Your task to perform on an android device: add a contact Image 0: 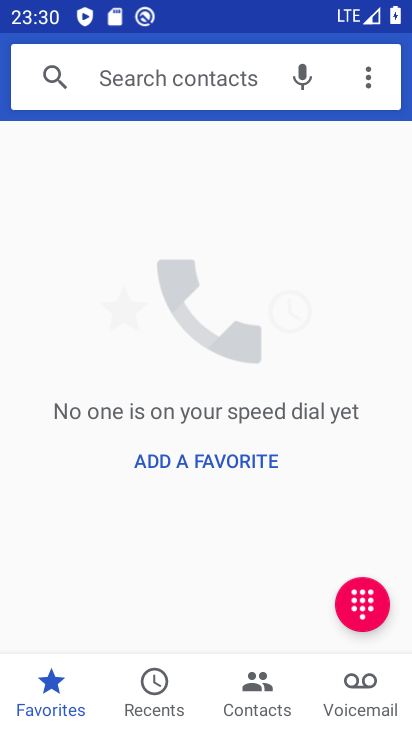
Step 0: press home button
Your task to perform on an android device: add a contact Image 1: 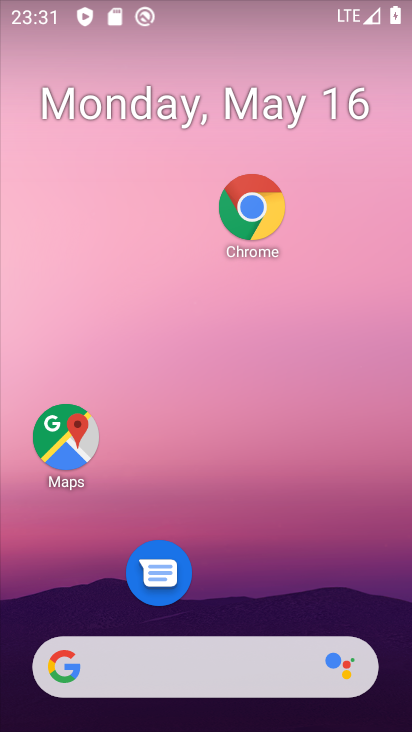
Step 1: drag from (213, 653) to (282, 57)
Your task to perform on an android device: add a contact Image 2: 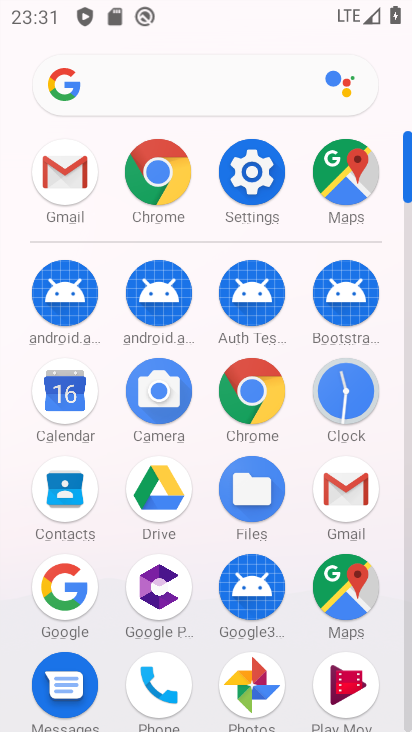
Step 2: click (67, 492)
Your task to perform on an android device: add a contact Image 3: 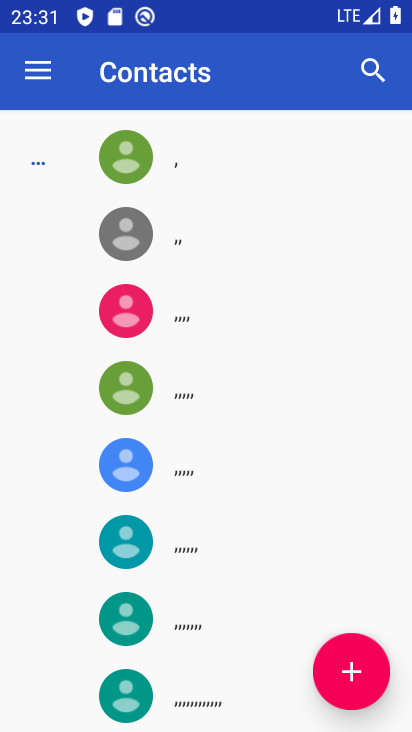
Step 3: click (341, 667)
Your task to perform on an android device: add a contact Image 4: 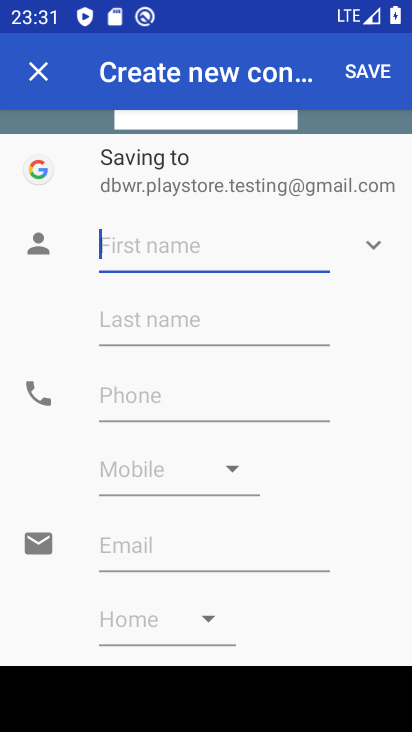
Step 4: type ""
Your task to perform on an android device: add a contact Image 5: 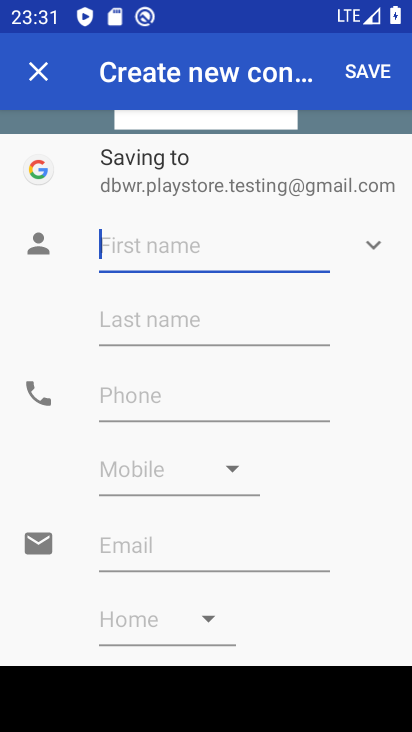
Step 5: type "hjjvhjjjj"
Your task to perform on an android device: add a contact Image 6: 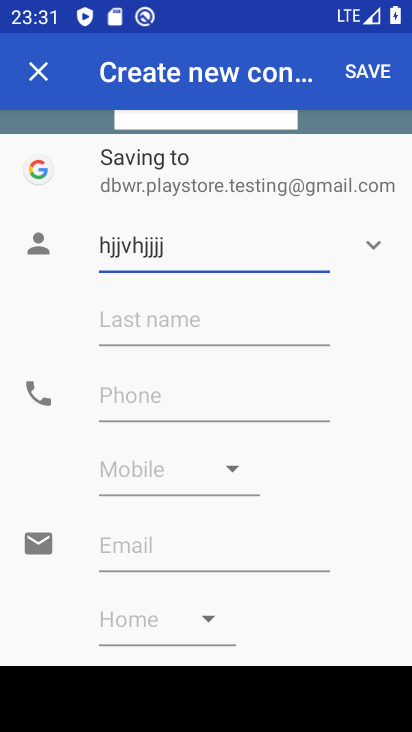
Step 6: click (228, 403)
Your task to perform on an android device: add a contact Image 7: 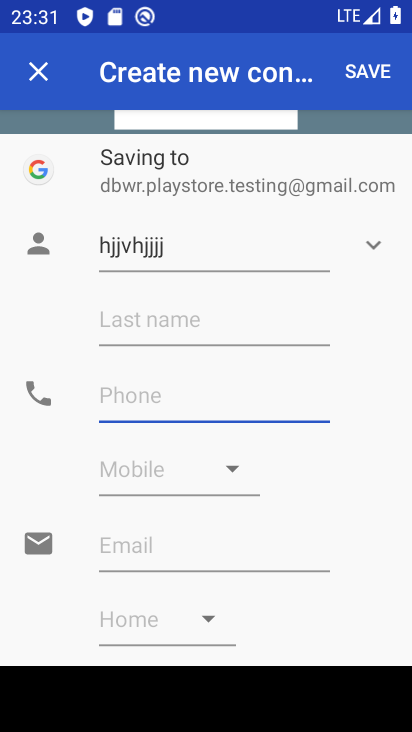
Step 7: type "9897898767"
Your task to perform on an android device: add a contact Image 8: 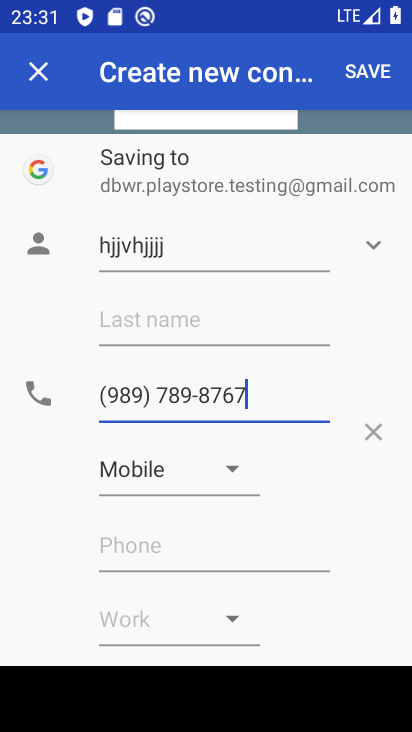
Step 8: click (383, 71)
Your task to perform on an android device: add a contact Image 9: 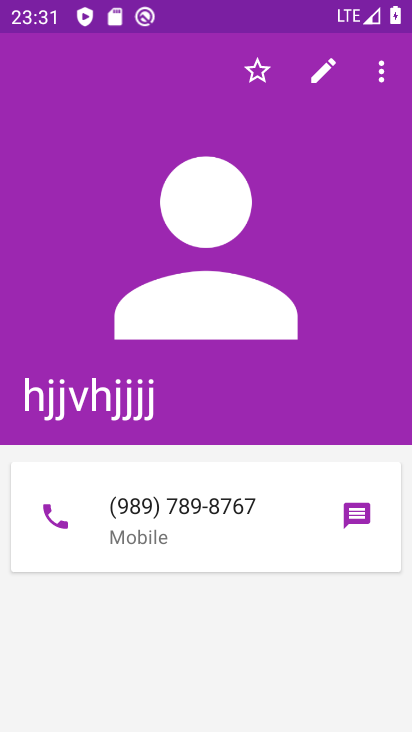
Step 9: task complete